Your task to perform on an android device: set an alarm Image 0: 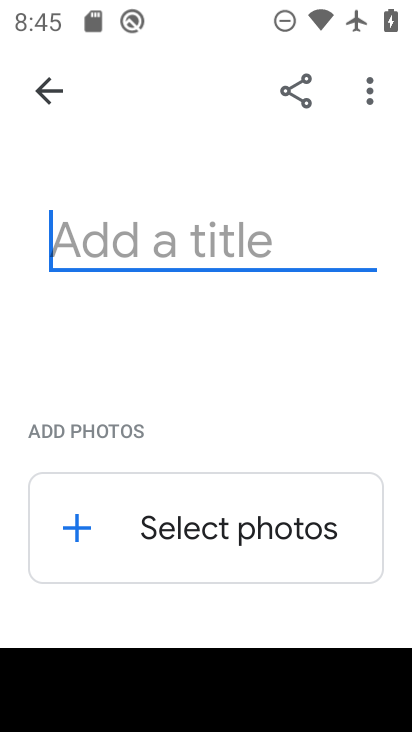
Step 0: press home button
Your task to perform on an android device: set an alarm Image 1: 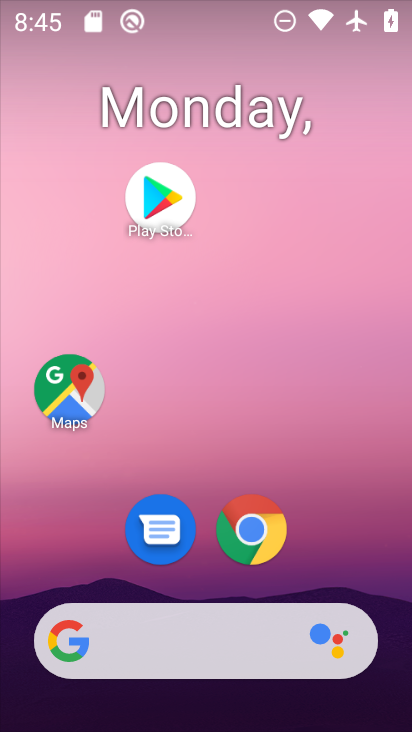
Step 1: drag from (262, 398) to (278, 15)
Your task to perform on an android device: set an alarm Image 2: 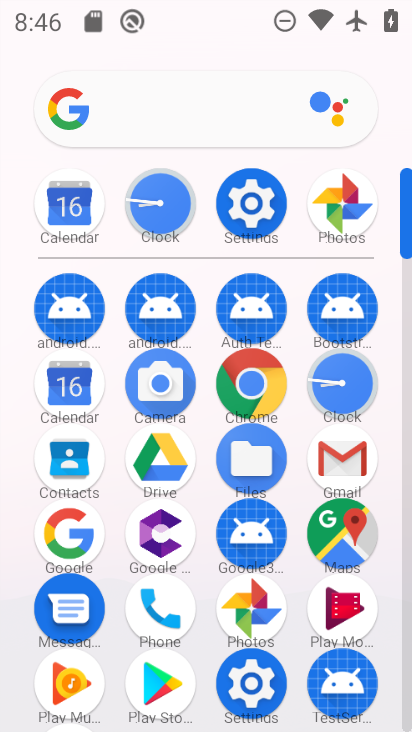
Step 2: click (160, 205)
Your task to perform on an android device: set an alarm Image 3: 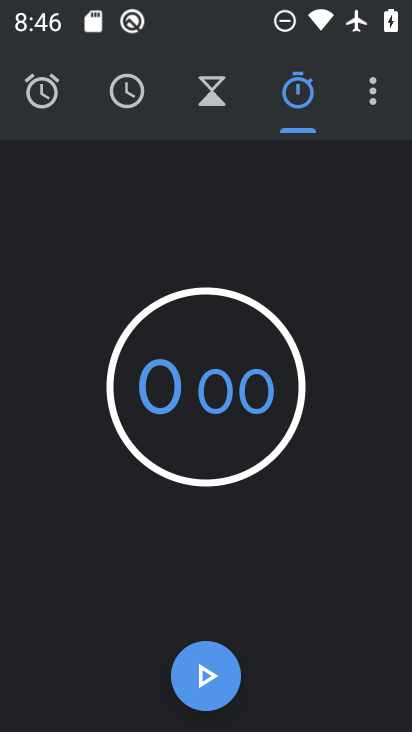
Step 3: click (43, 96)
Your task to perform on an android device: set an alarm Image 4: 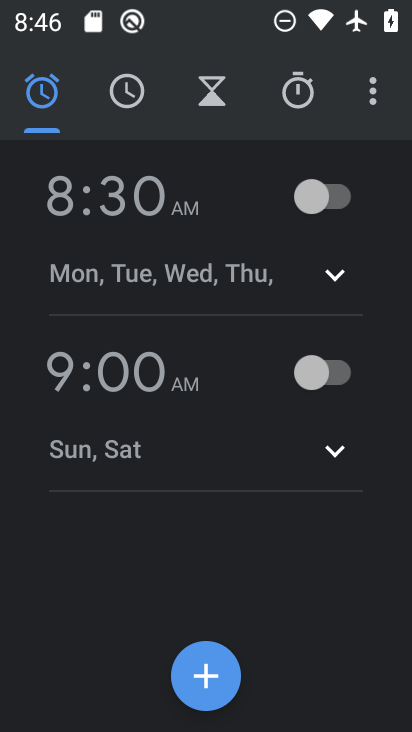
Step 4: click (203, 673)
Your task to perform on an android device: set an alarm Image 5: 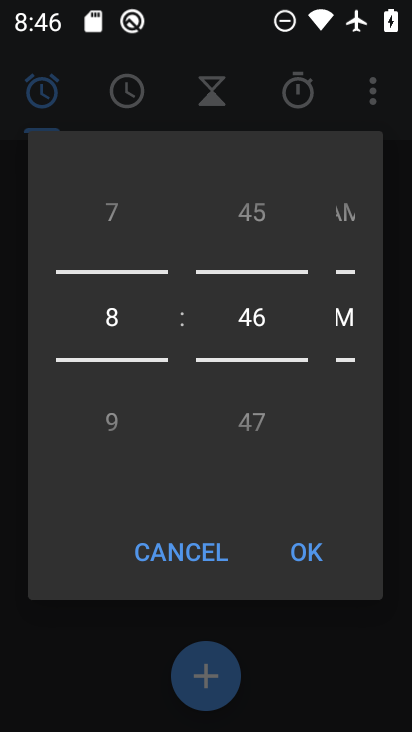
Step 5: click (309, 553)
Your task to perform on an android device: set an alarm Image 6: 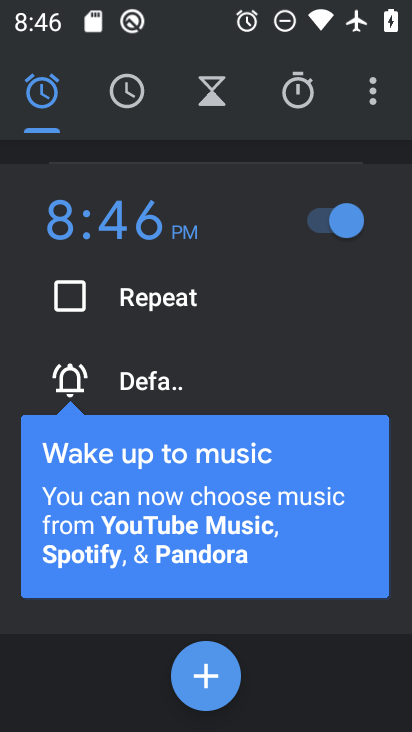
Step 6: task complete